Your task to perform on an android device: Show me recent news Image 0: 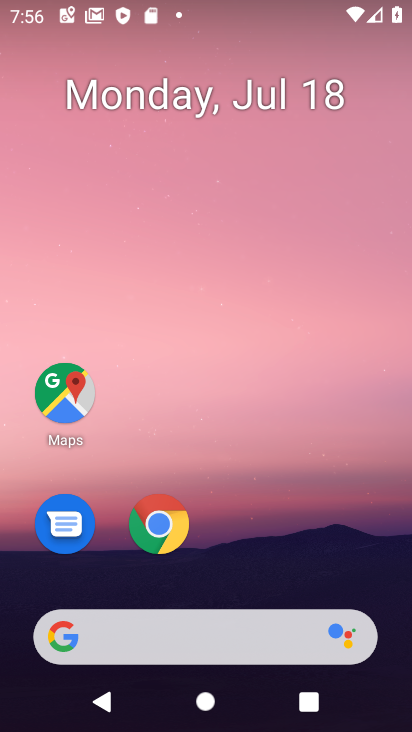
Step 0: click (234, 652)
Your task to perform on an android device: Show me recent news Image 1: 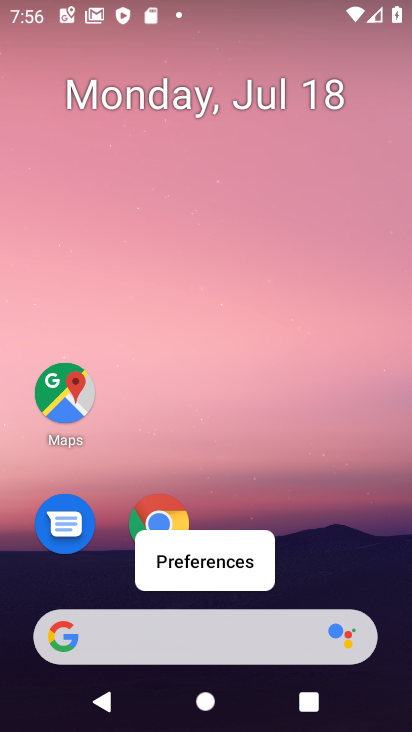
Step 1: click (176, 647)
Your task to perform on an android device: Show me recent news Image 2: 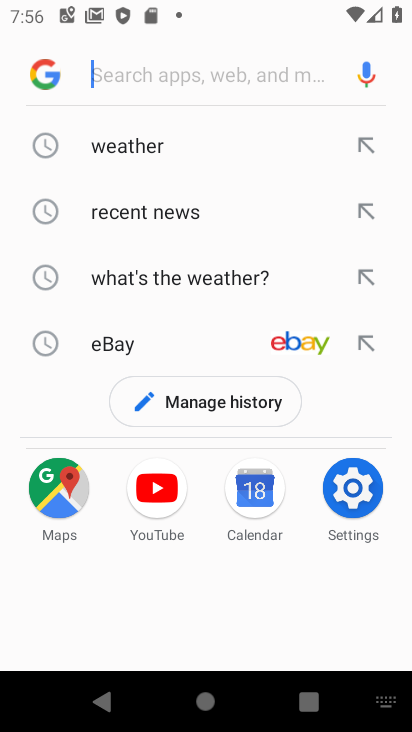
Step 2: click (173, 209)
Your task to perform on an android device: Show me recent news Image 3: 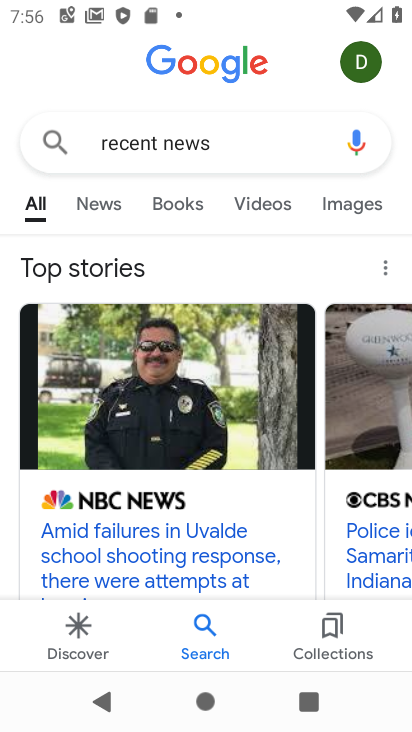
Step 3: drag from (206, 500) to (223, 368)
Your task to perform on an android device: Show me recent news Image 4: 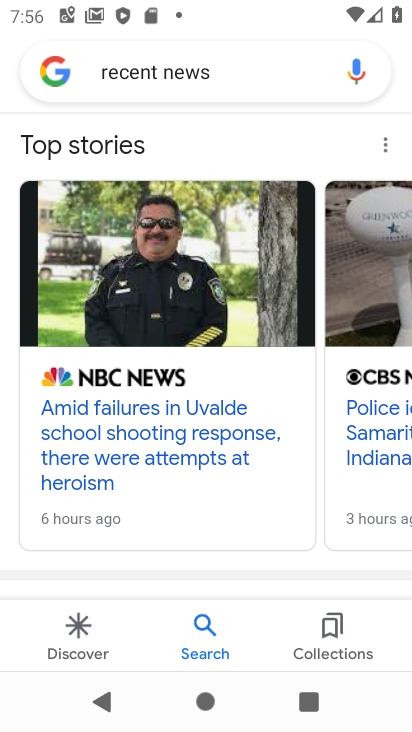
Step 4: click (201, 419)
Your task to perform on an android device: Show me recent news Image 5: 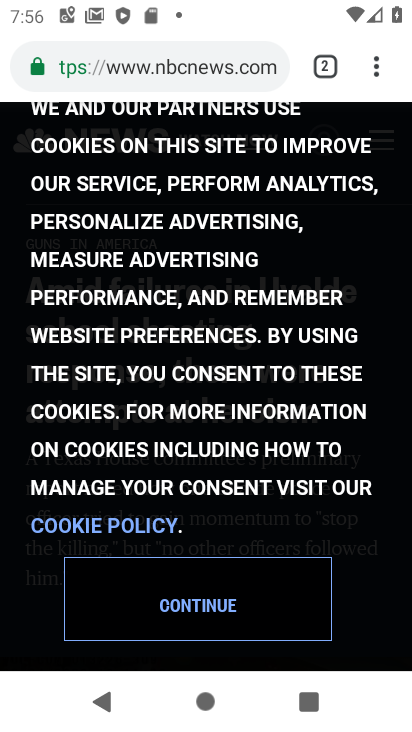
Step 5: click (211, 597)
Your task to perform on an android device: Show me recent news Image 6: 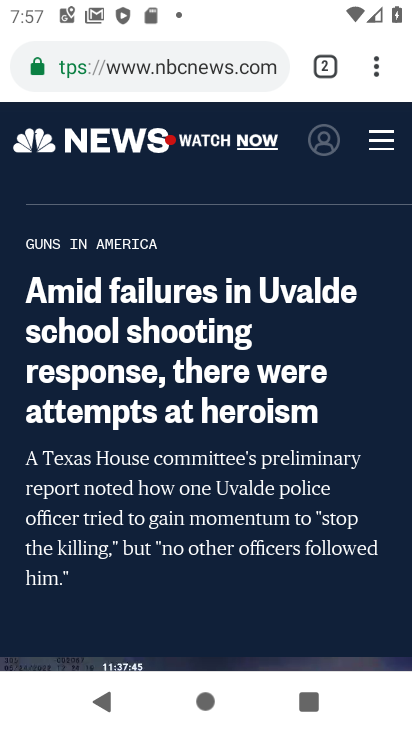
Step 6: task complete